Your task to perform on an android device: Open the map Image 0: 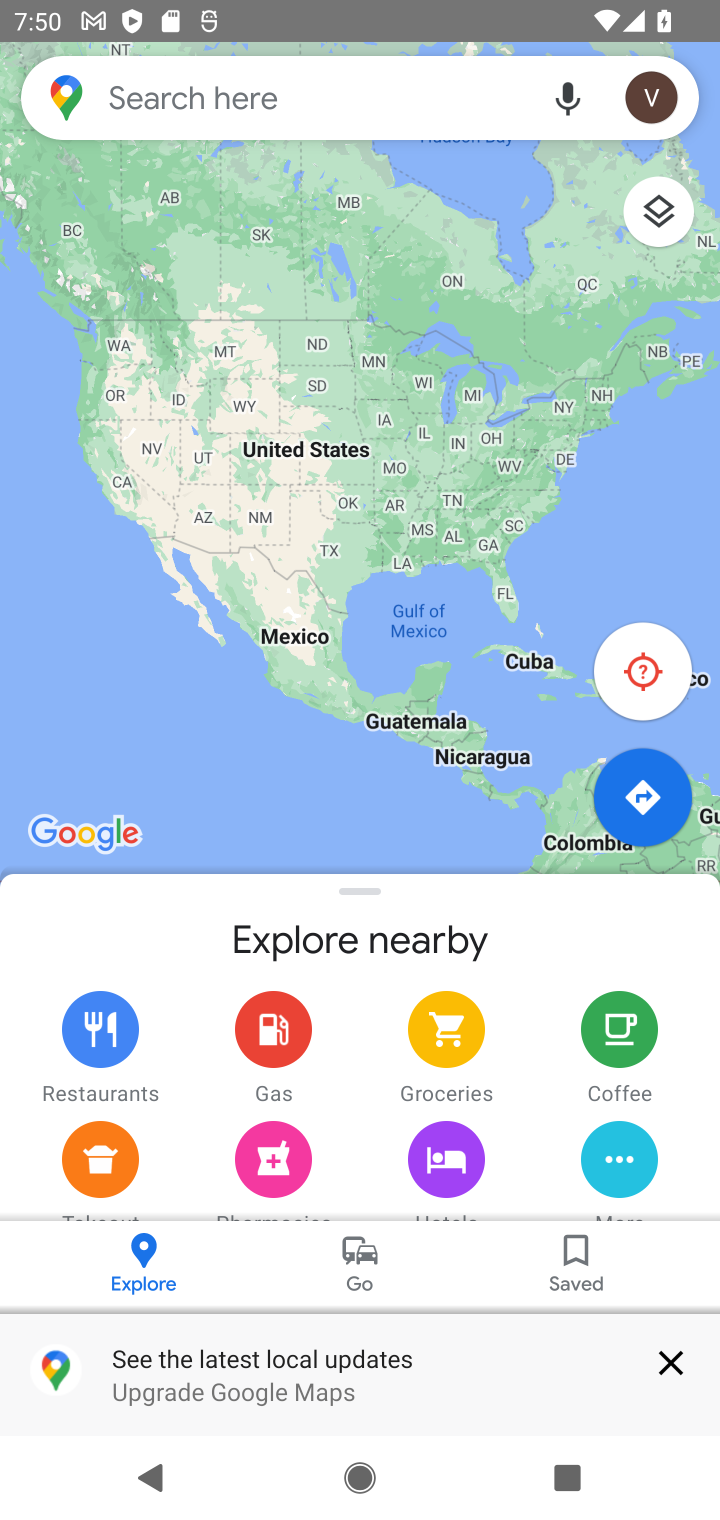
Step 0: task complete